Your task to perform on an android device: Is it going to rain today? Image 0: 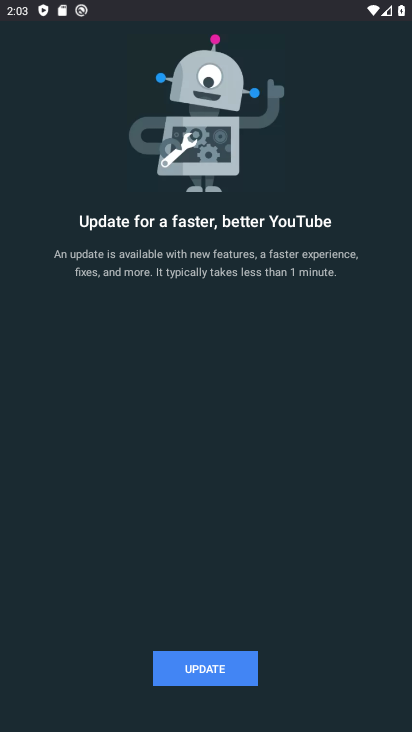
Step 0: press back button
Your task to perform on an android device: Is it going to rain today? Image 1: 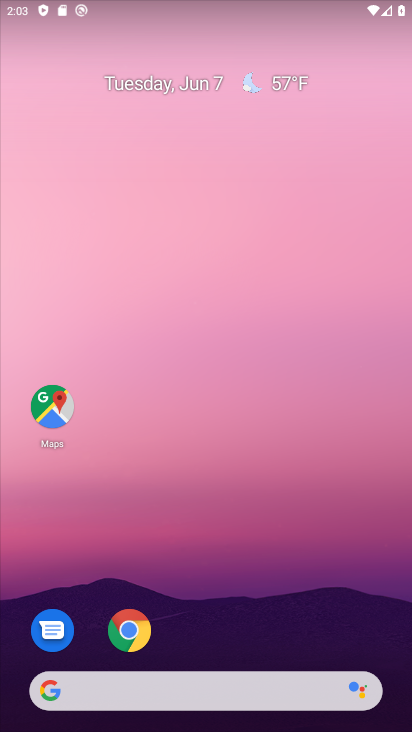
Step 1: click (273, 88)
Your task to perform on an android device: Is it going to rain today? Image 2: 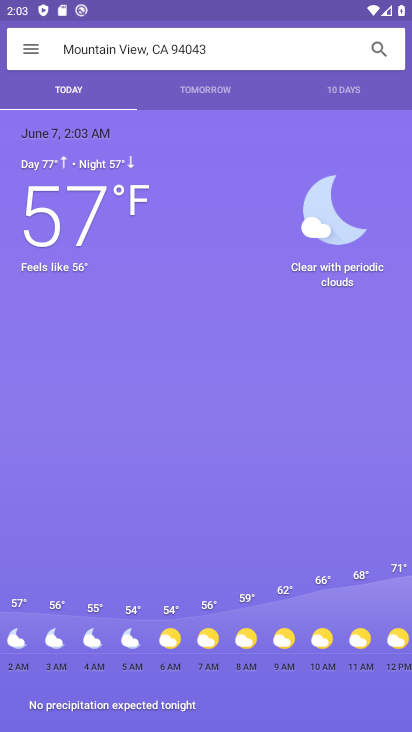
Step 2: task complete